Your task to perform on an android device: Open the calendar app, open the side menu, and click the "Day" option Image 0: 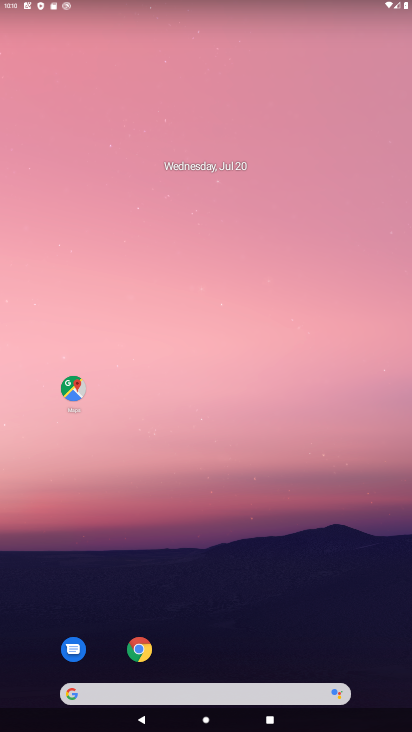
Step 0: drag from (280, 631) to (292, 0)
Your task to perform on an android device: Open the calendar app, open the side menu, and click the "Day" option Image 1: 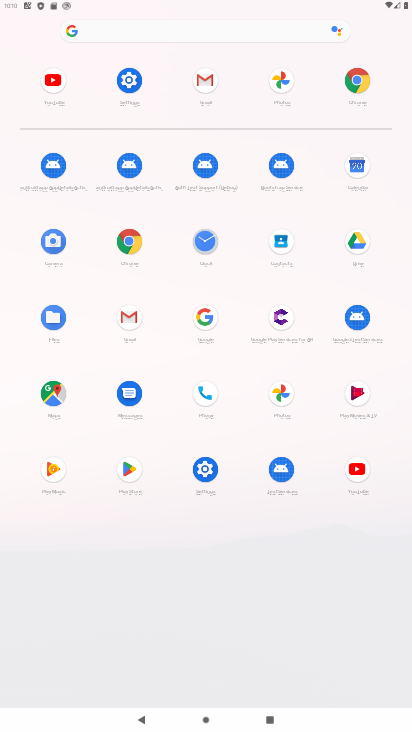
Step 1: click (353, 178)
Your task to perform on an android device: Open the calendar app, open the side menu, and click the "Day" option Image 2: 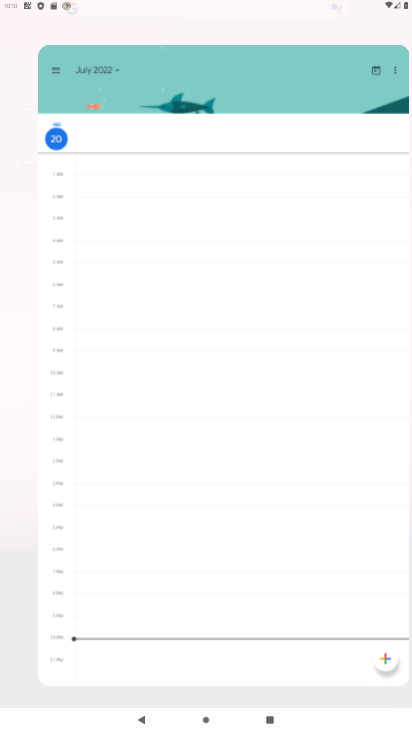
Step 2: task complete